Your task to perform on an android device: toggle location history Image 0: 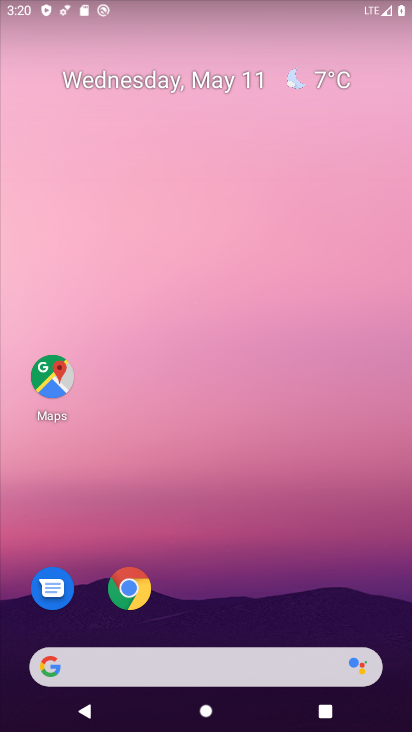
Step 0: drag from (219, 726) to (212, 117)
Your task to perform on an android device: toggle location history Image 1: 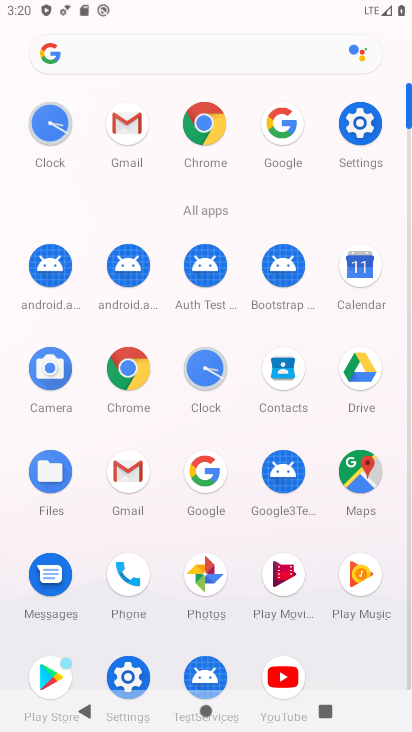
Step 1: click (359, 127)
Your task to perform on an android device: toggle location history Image 2: 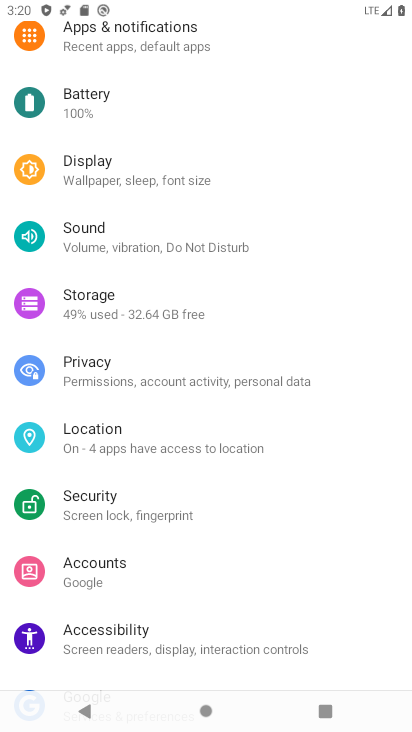
Step 2: click (75, 441)
Your task to perform on an android device: toggle location history Image 3: 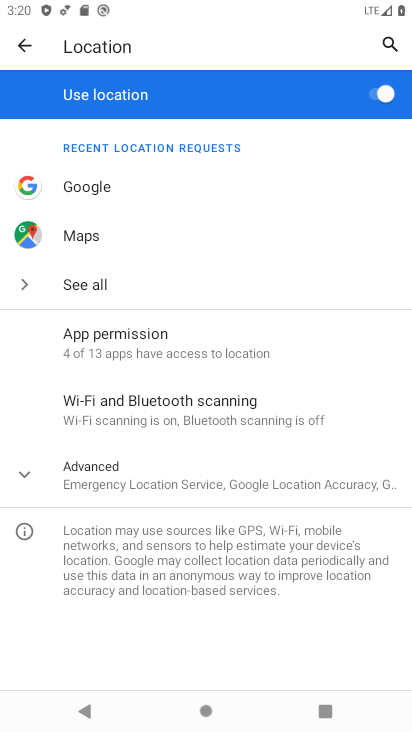
Step 3: click (77, 464)
Your task to perform on an android device: toggle location history Image 4: 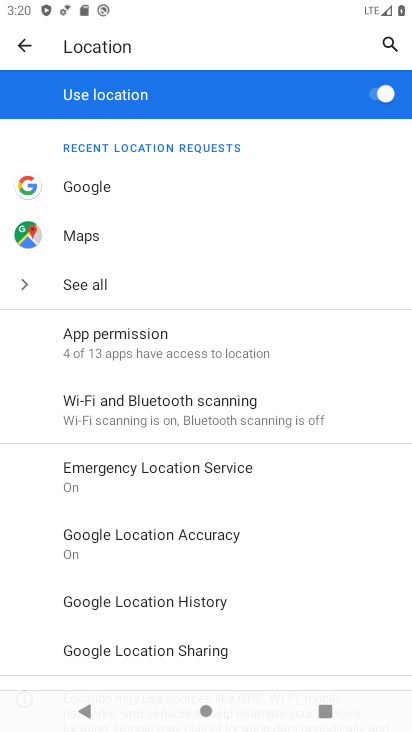
Step 4: click (155, 598)
Your task to perform on an android device: toggle location history Image 5: 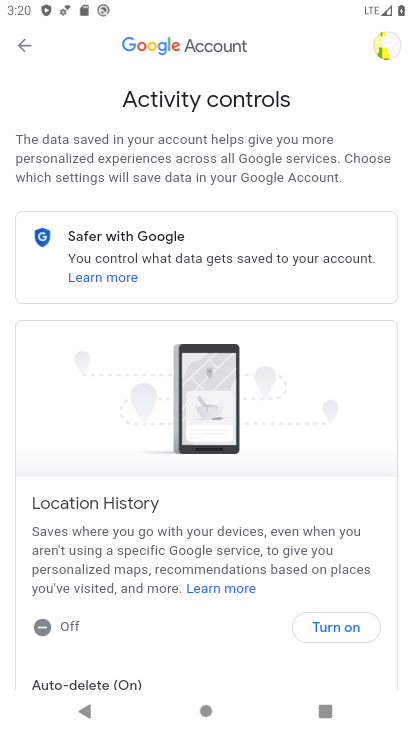
Step 5: click (333, 624)
Your task to perform on an android device: toggle location history Image 6: 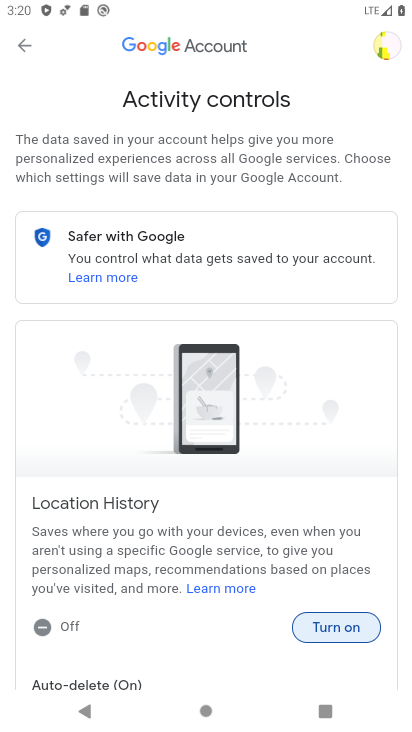
Step 6: click (343, 628)
Your task to perform on an android device: toggle location history Image 7: 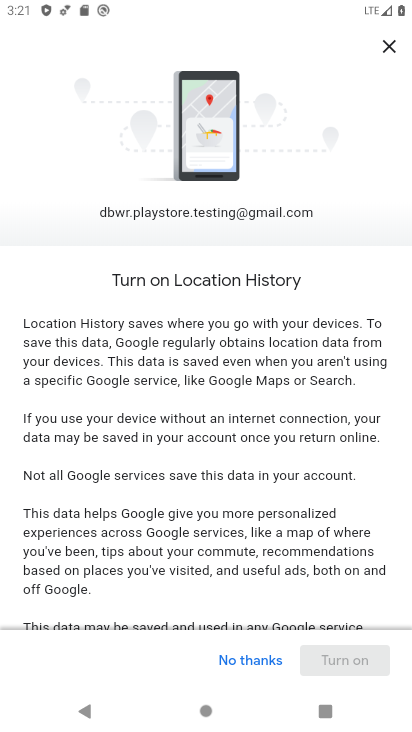
Step 7: drag from (335, 598) to (321, 219)
Your task to perform on an android device: toggle location history Image 8: 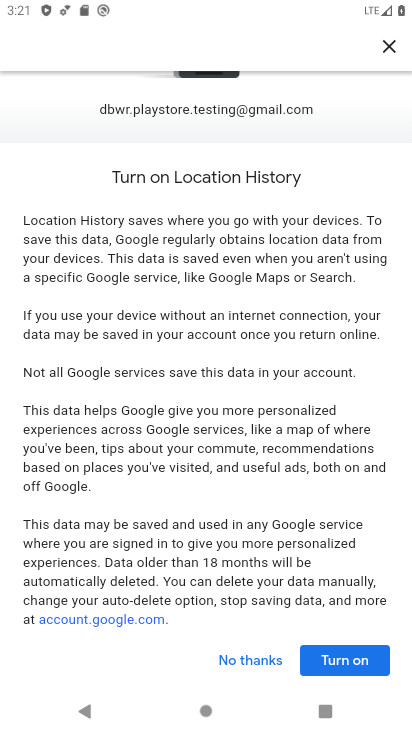
Step 8: click (324, 653)
Your task to perform on an android device: toggle location history Image 9: 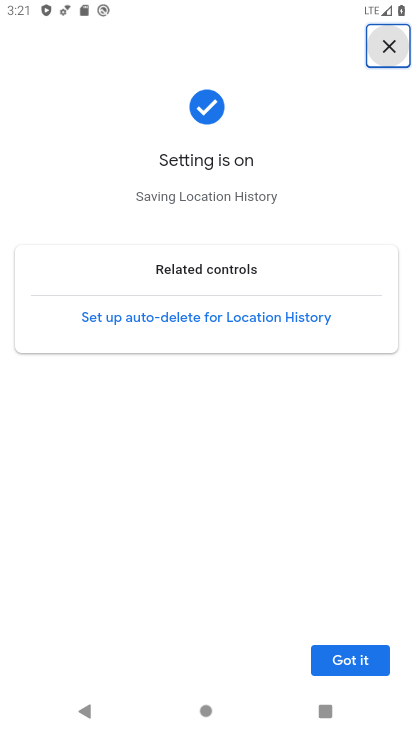
Step 9: task complete